Your task to perform on an android device: Search for vegetarian restaurants on Maps Image 0: 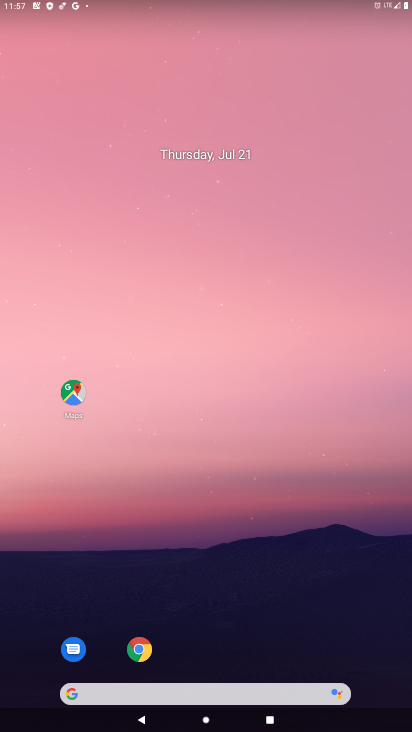
Step 0: drag from (308, 608) to (265, 26)
Your task to perform on an android device: Search for vegetarian restaurants on Maps Image 1: 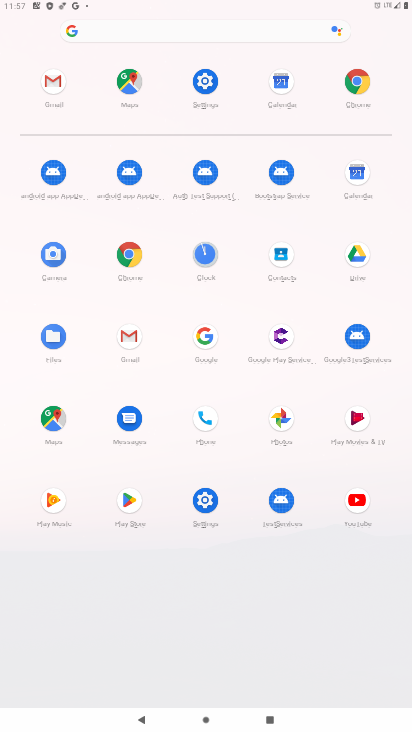
Step 1: click (53, 413)
Your task to perform on an android device: Search for vegetarian restaurants on Maps Image 2: 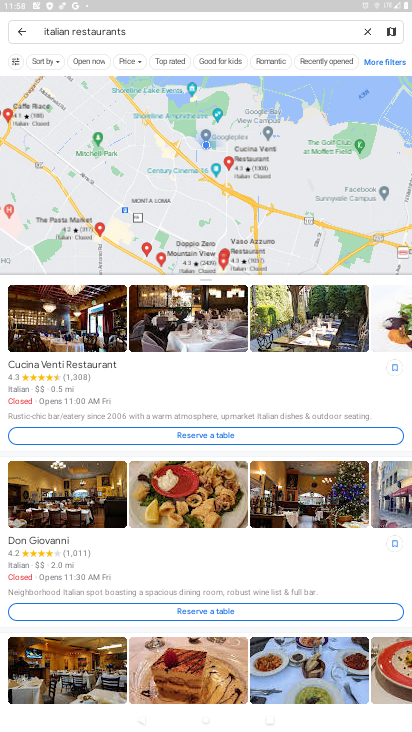
Step 2: click (363, 27)
Your task to perform on an android device: Search for vegetarian restaurants on Maps Image 3: 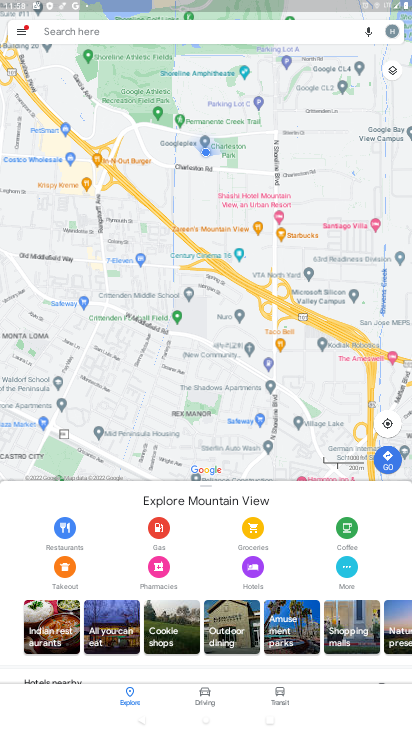
Step 3: click (272, 34)
Your task to perform on an android device: Search for vegetarian restaurants on Maps Image 4: 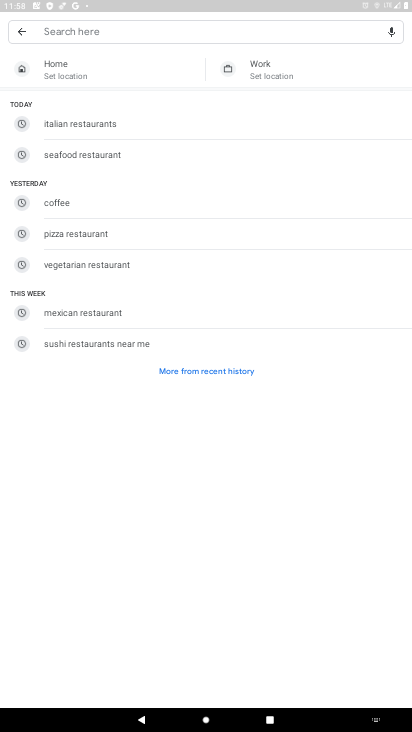
Step 4: type "vegetarian restaurants"
Your task to perform on an android device: Search for vegetarian restaurants on Maps Image 5: 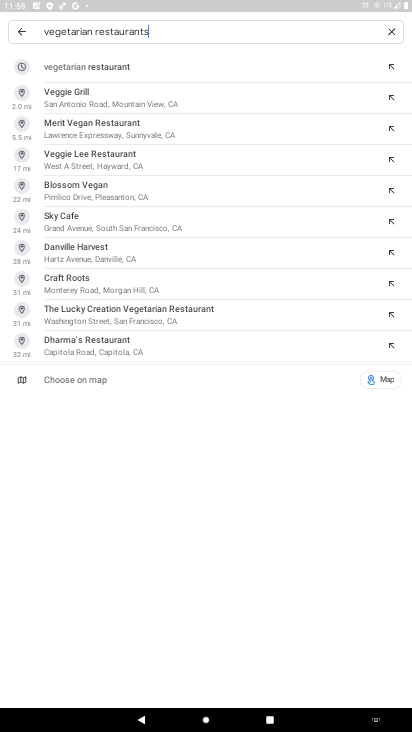
Step 5: press enter
Your task to perform on an android device: Search for vegetarian restaurants on Maps Image 6: 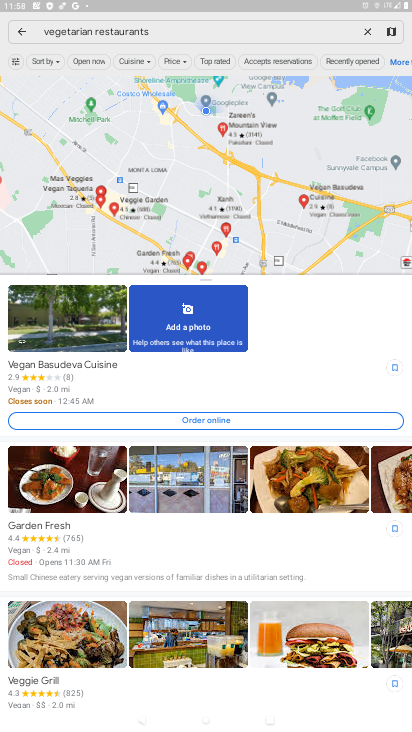
Step 6: task complete